Your task to perform on an android device: search for starred emails in the gmail app Image 0: 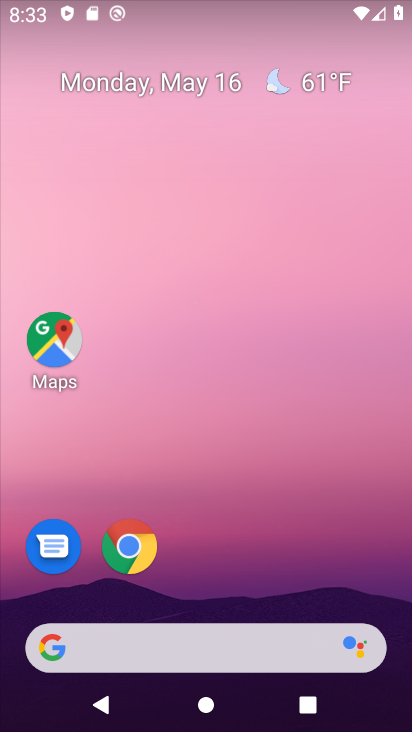
Step 0: drag from (348, 525) to (246, 7)
Your task to perform on an android device: search for starred emails in the gmail app Image 1: 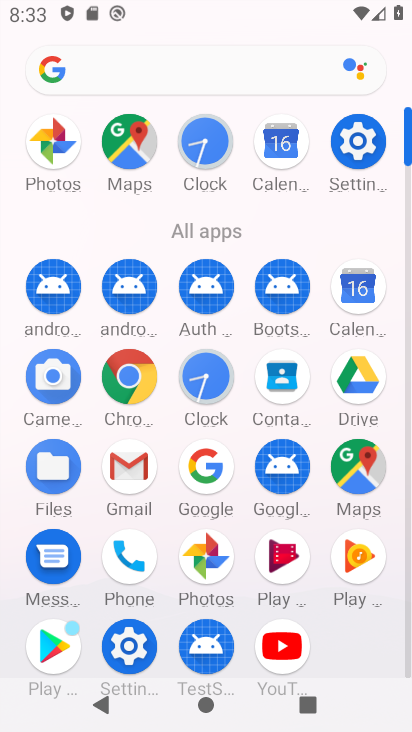
Step 1: click (125, 464)
Your task to perform on an android device: search for starred emails in the gmail app Image 2: 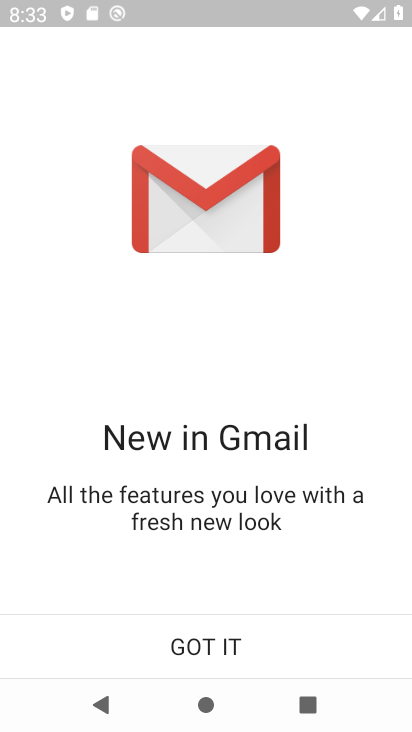
Step 2: click (204, 623)
Your task to perform on an android device: search for starred emails in the gmail app Image 3: 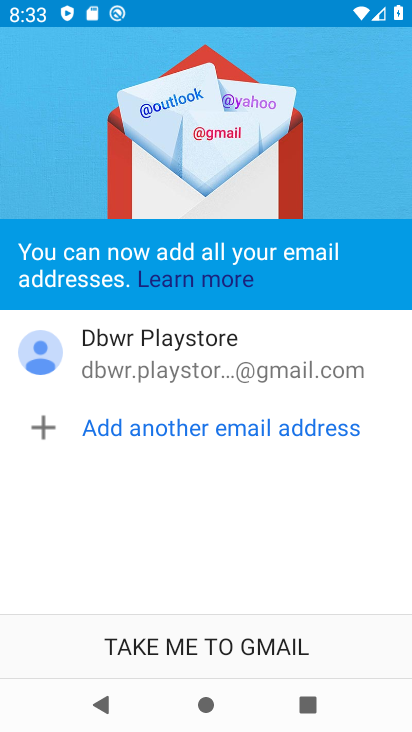
Step 3: click (169, 640)
Your task to perform on an android device: search for starred emails in the gmail app Image 4: 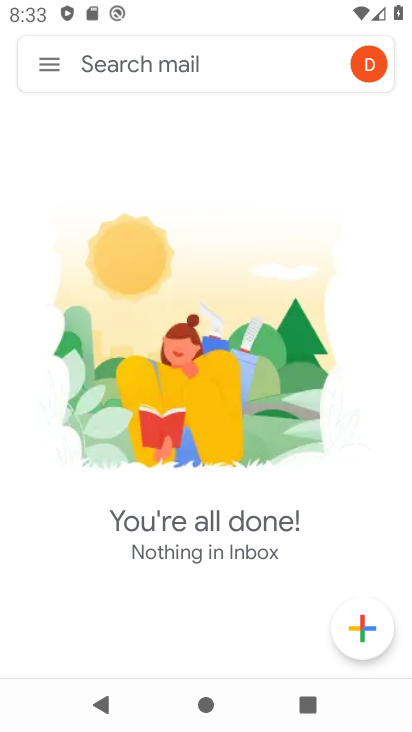
Step 4: click (47, 75)
Your task to perform on an android device: search for starred emails in the gmail app Image 5: 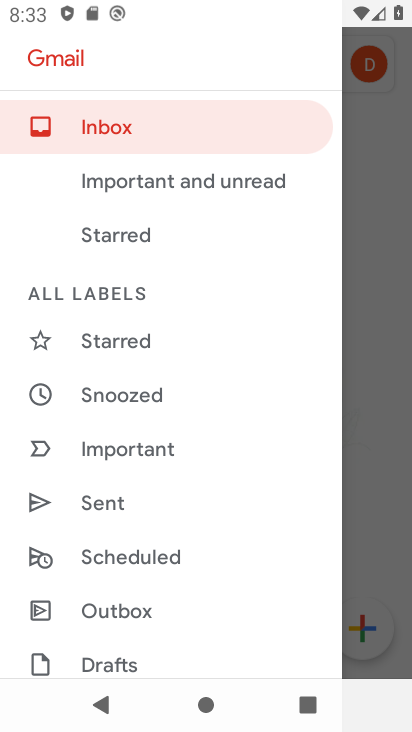
Step 5: click (149, 339)
Your task to perform on an android device: search for starred emails in the gmail app Image 6: 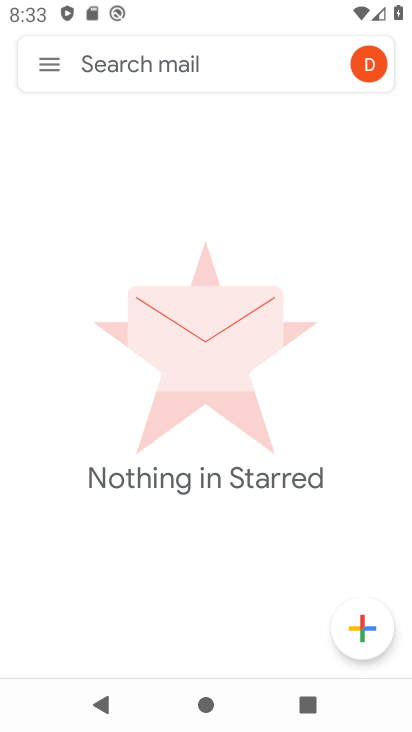
Step 6: task complete